Your task to perform on an android device: Go to Amazon Image 0: 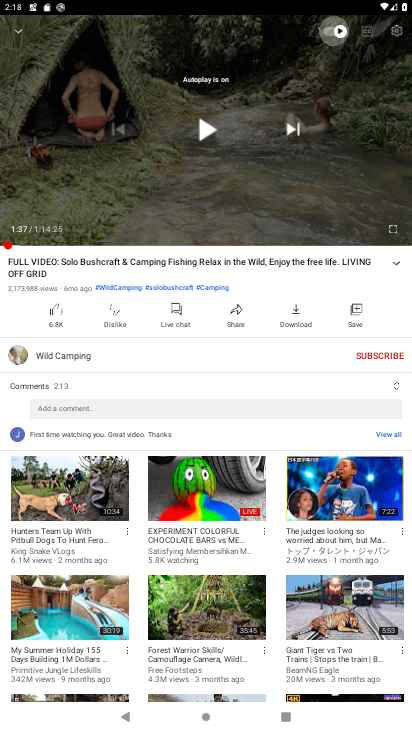
Step 0: press home button
Your task to perform on an android device: Go to Amazon Image 1: 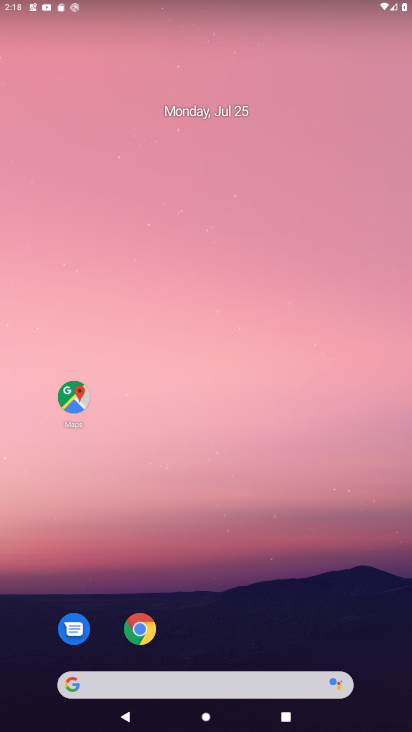
Step 1: drag from (373, 576) to (308, 152)
Your task to perform on an android device: Go to Amazon Image 2: 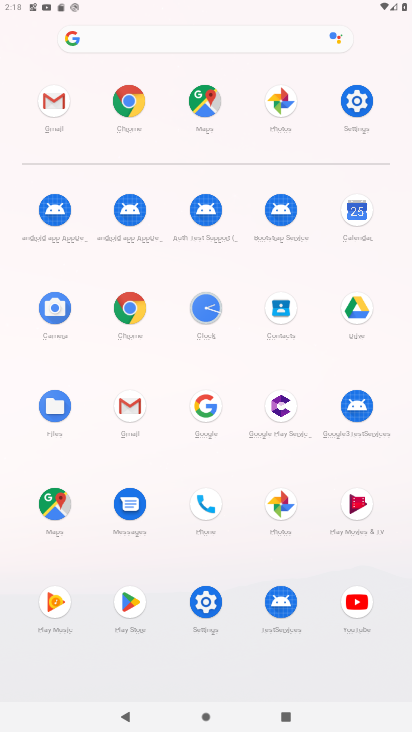
Step 2: click (126, 96)
Your task to perform on an android device: Go to Amazon Image 3: 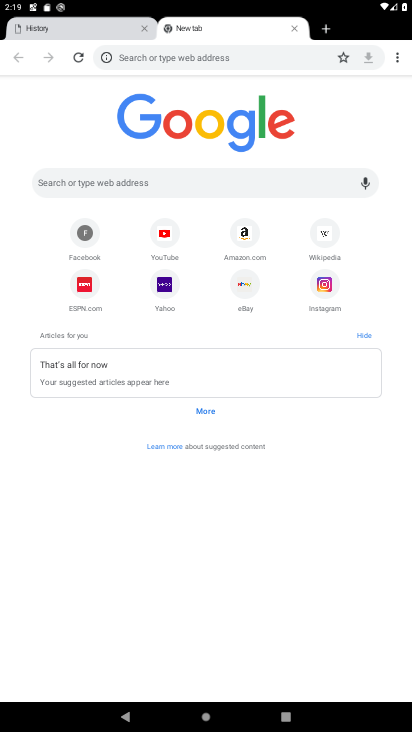
Step 3: click (237, 241)
Your task to perform on an android device: Go to Amazon Image 4: 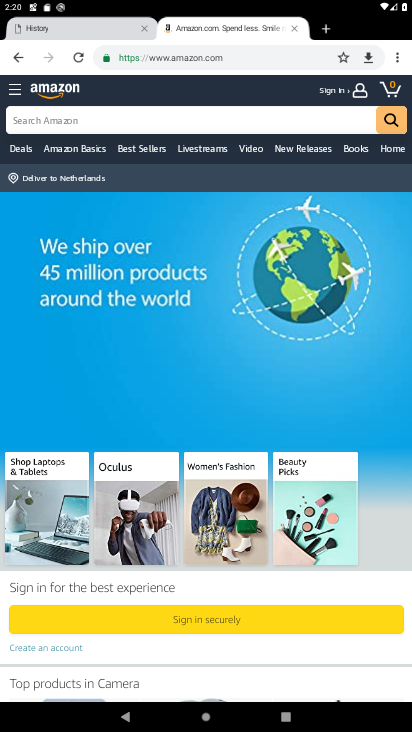
Step 4: task complete